Your task to perform on an android device: Show me recent news Image 0: 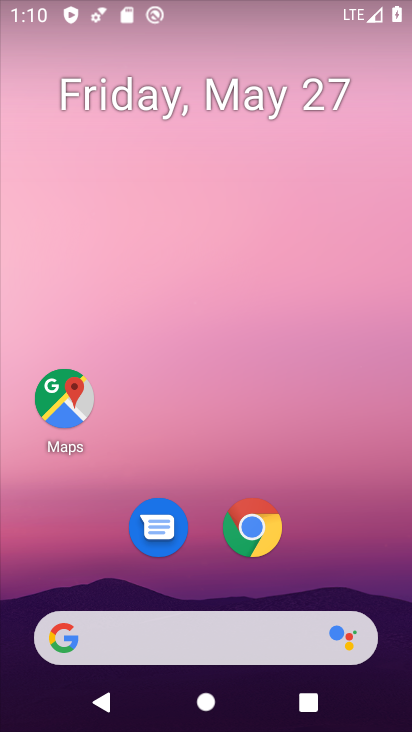
Step 0: drag from (161, 711) to (262, 88)
Your task to perform on an android device: Show me recent news Image 1: 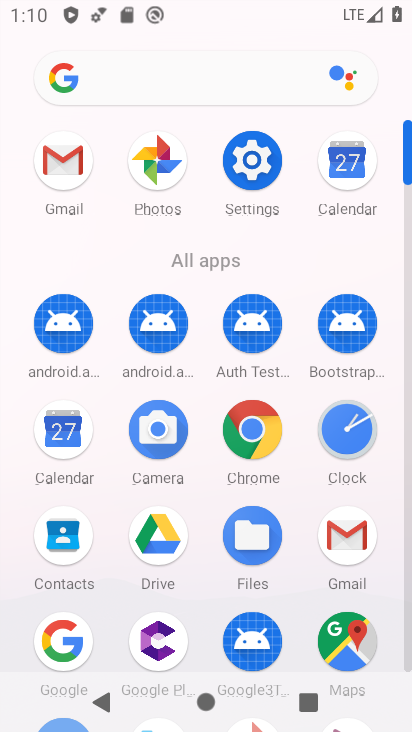
Step 1: click (253, 69)
Your task to perform on an android device: Show me recent news Image 2: 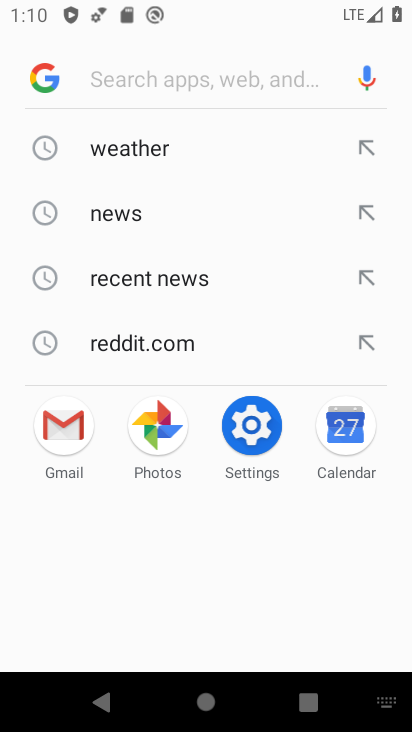
Step 2: click (122, 281)
Your task to perform on an android device: Show me recent news Image 3: 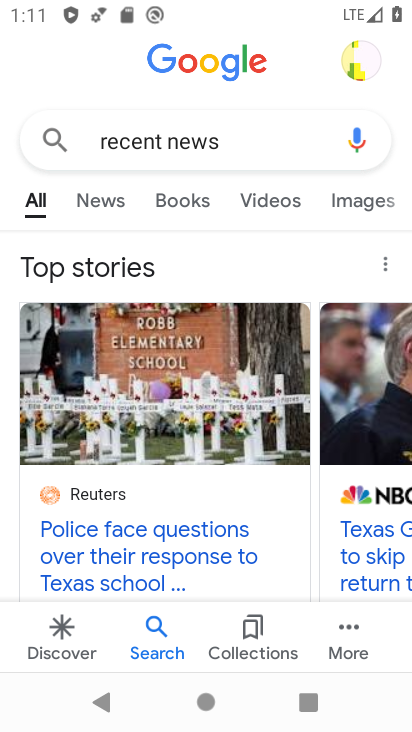
Step 3: task complete